Your task to perform on an android device: Open accessibility settings Image 0: 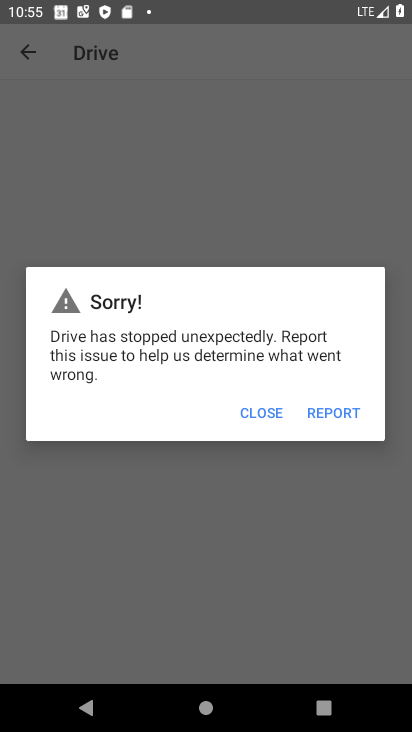
Step 0: press home button
Your task to perform on an android device: Open accessibility settings Image 1: 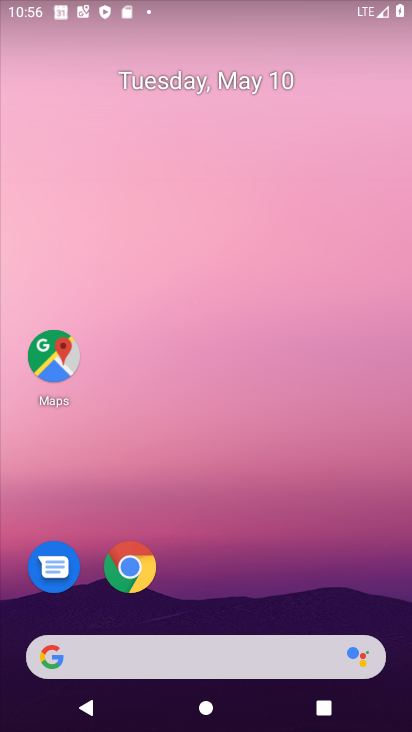
Step 1: drag from (4, 633) to (156, 98)
Your task to perform on an android device: Open accessibility settings Image 2: 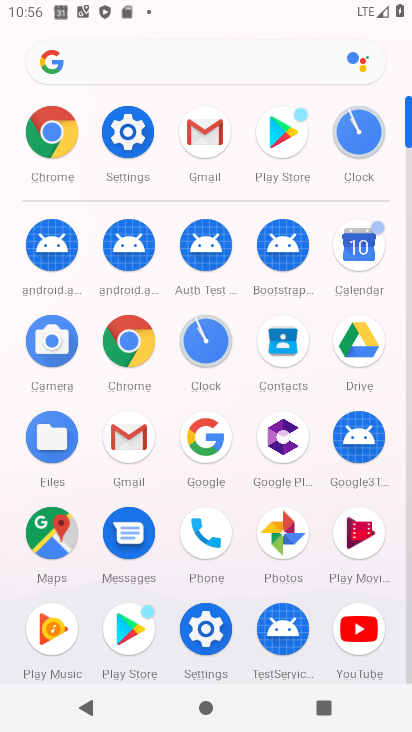
Step 2: click (130, 131)
Your task to perform on an android device: Open accessibility settings Image 3: 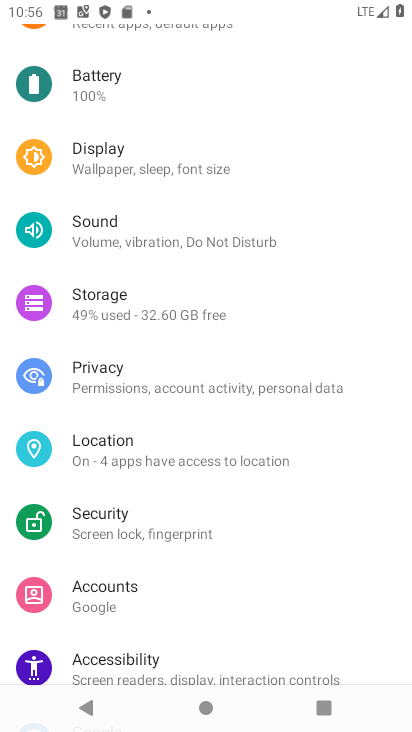
Step 3: click (97, 672)
Your task to perform on an android device: Open accessibility settings Image 4: 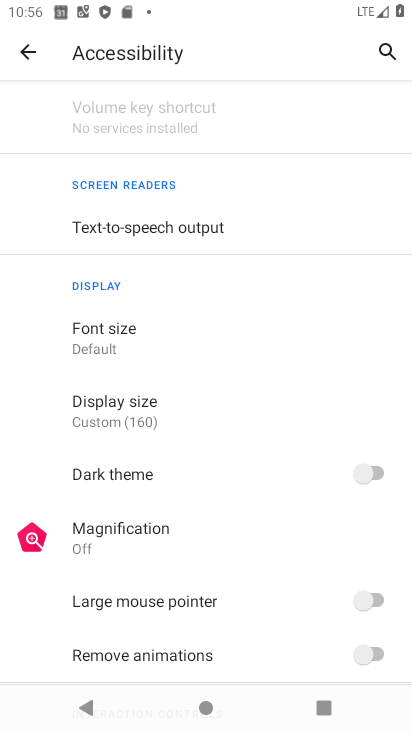
Step 4: task complete